Your task to perform on an android device: Turn off the flashlight Image 0: 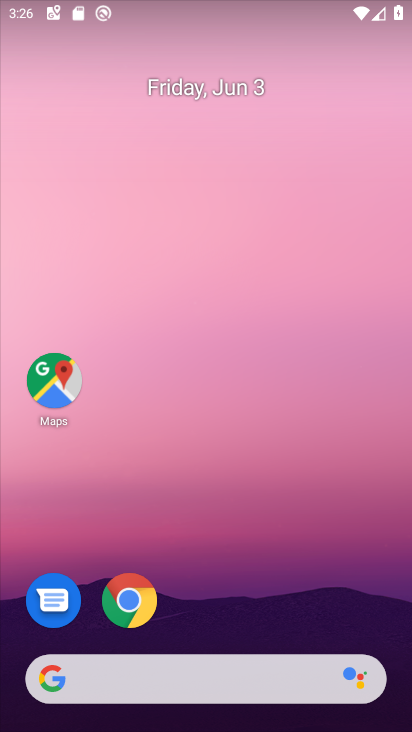
Step 0: drag from (286, 578) to (311, 165)
Your task to perform on an android device: Turn off the flashlight Image 1: 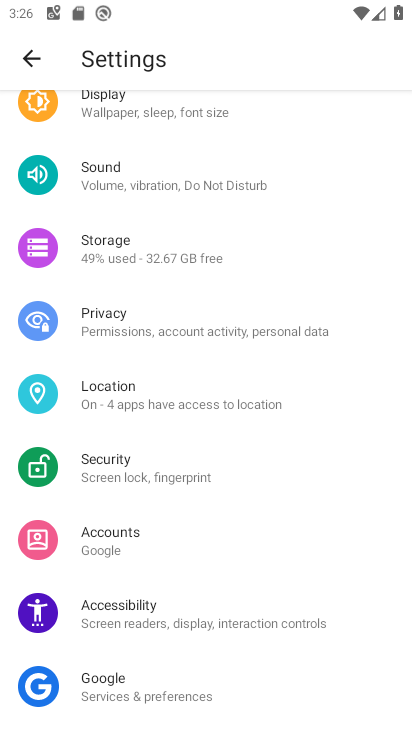
Step 1: click (160, 111)
Your task to perform on an android device: Turn off the flashlight Image 2: 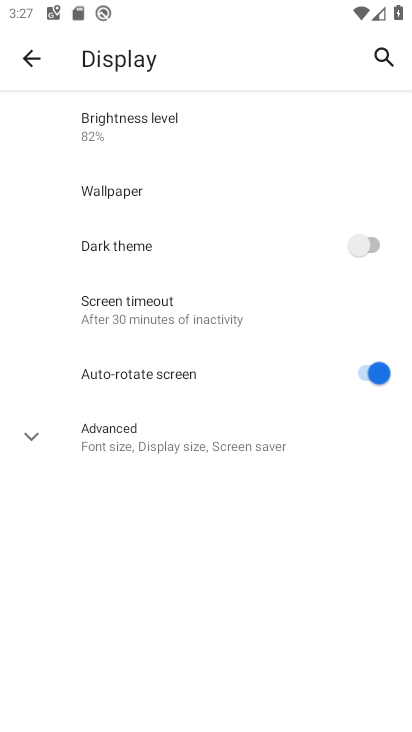
Step 2: task complete